Your task to perform on an android device: Check the news Image 0: 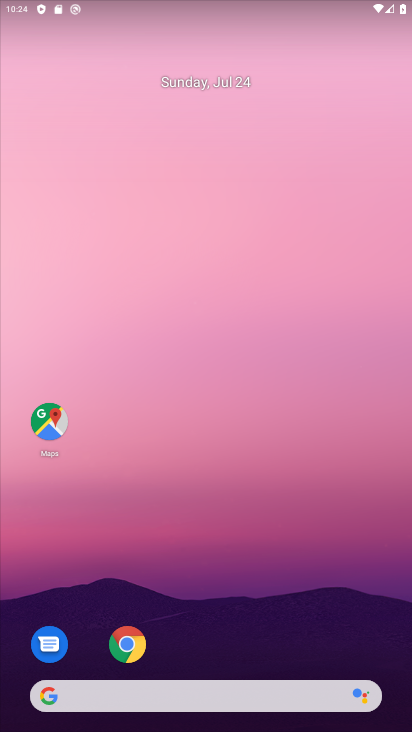
Step 0: click (170, 690)
Your task to perform on an android device: Check the news Image 1: 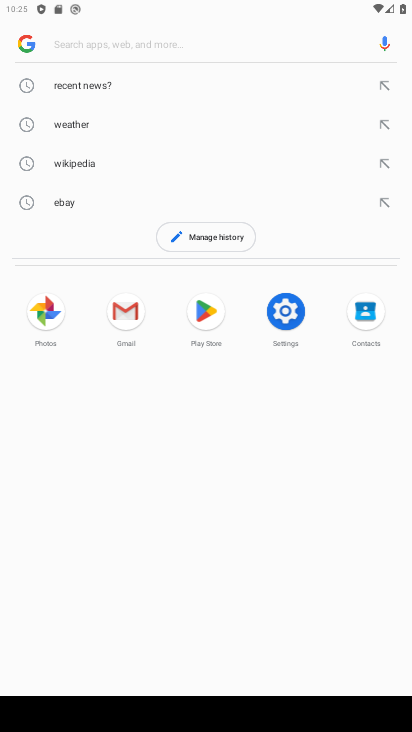
Step 1: type "news"
Your task to perform on an android device: Check the news Image 2: 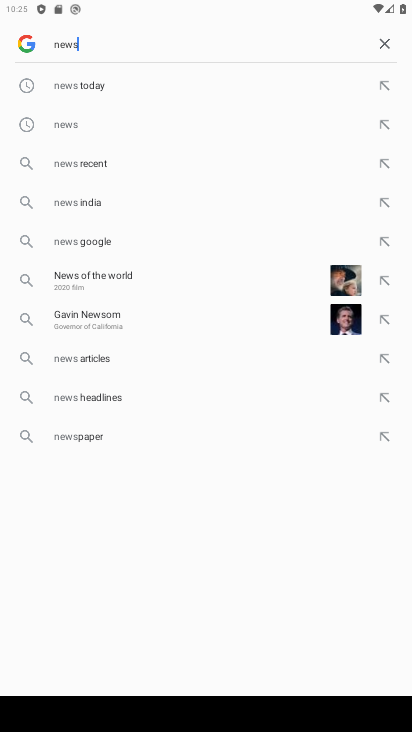
Step 2: click (64, 128)
Your task to perform on an android device: Check the news Image 3: 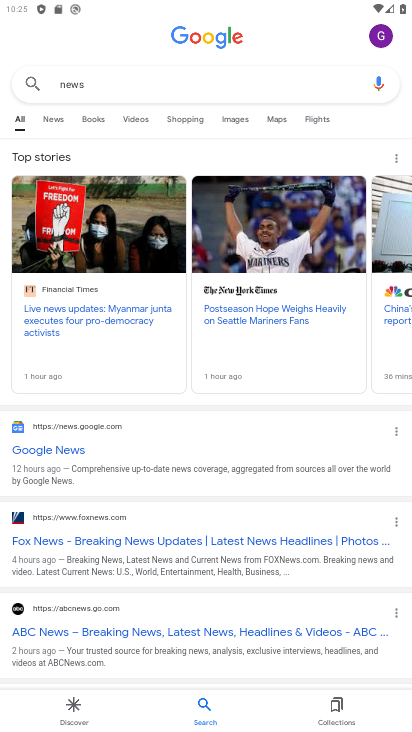
Step 3: click (47, 117)
Your task to perform on an android device: Check the news Image 4: 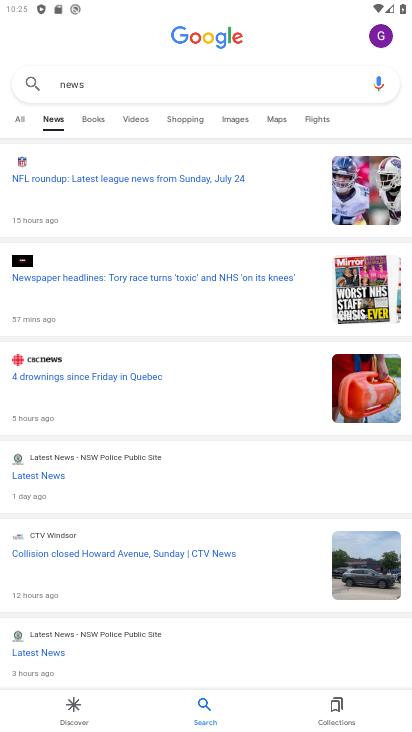
Step 4: task complete